Your task to perform on an android device: Open sound settings Image 0: 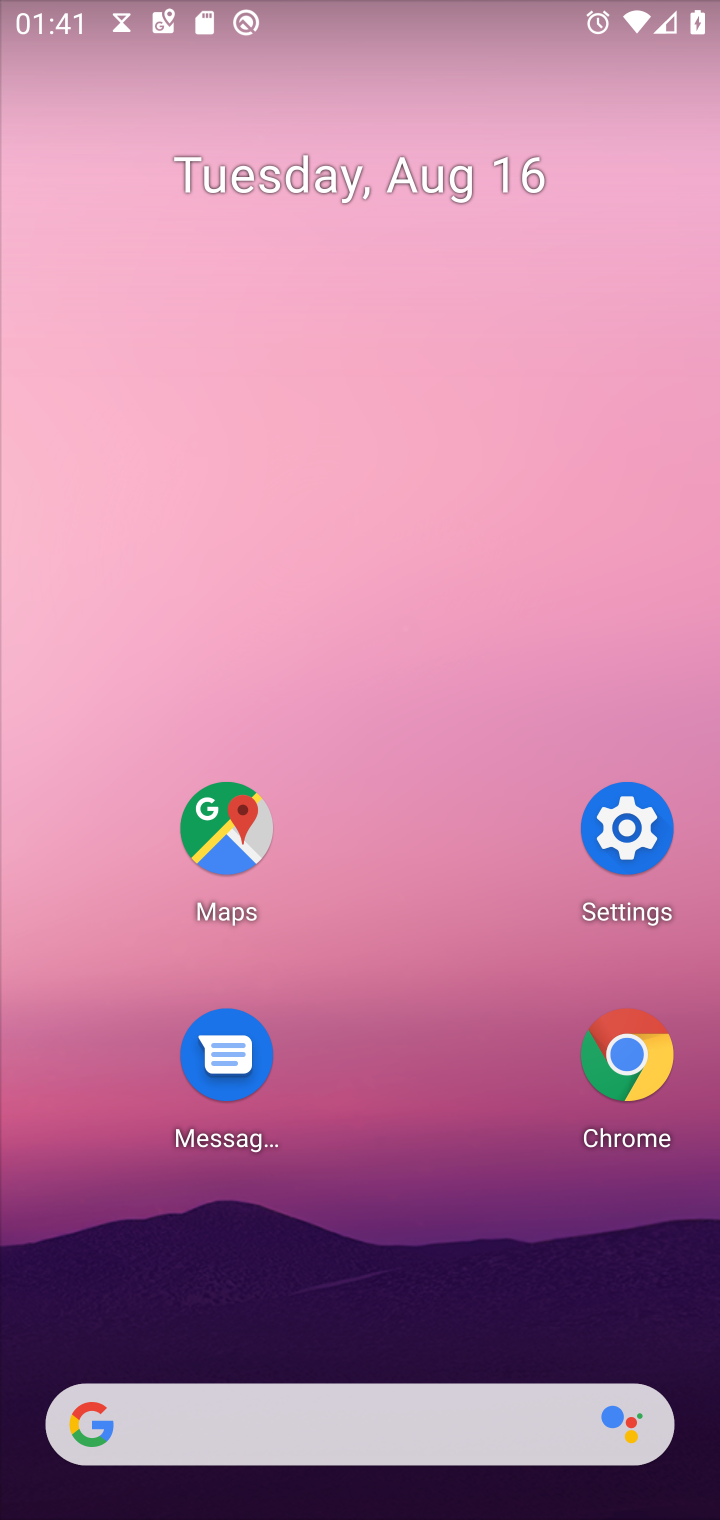
Step 0: press home button
Your task to perform on an android device: Open sound settings Image 1: 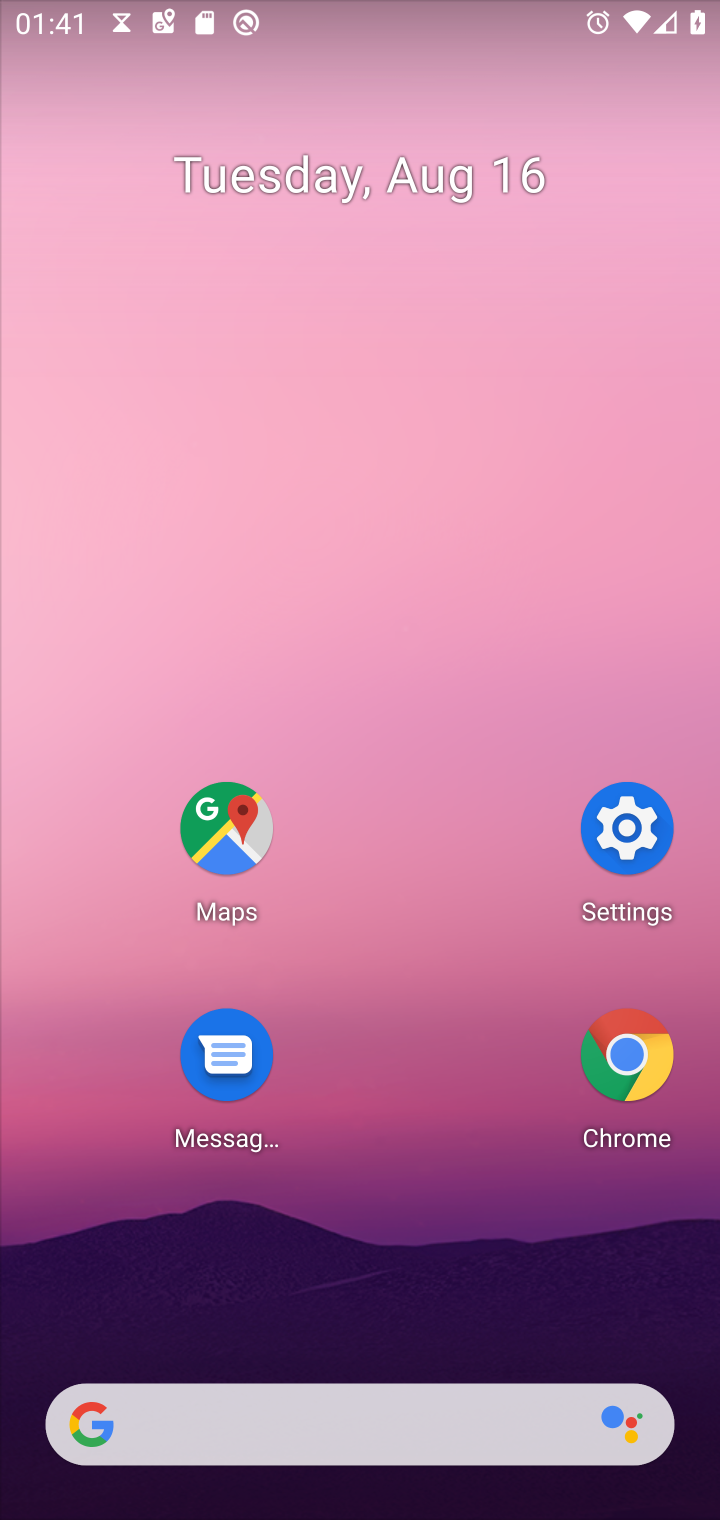
Step 1: click (597, 838)
Your task to perform on an android device: Open sound settings Image 2: 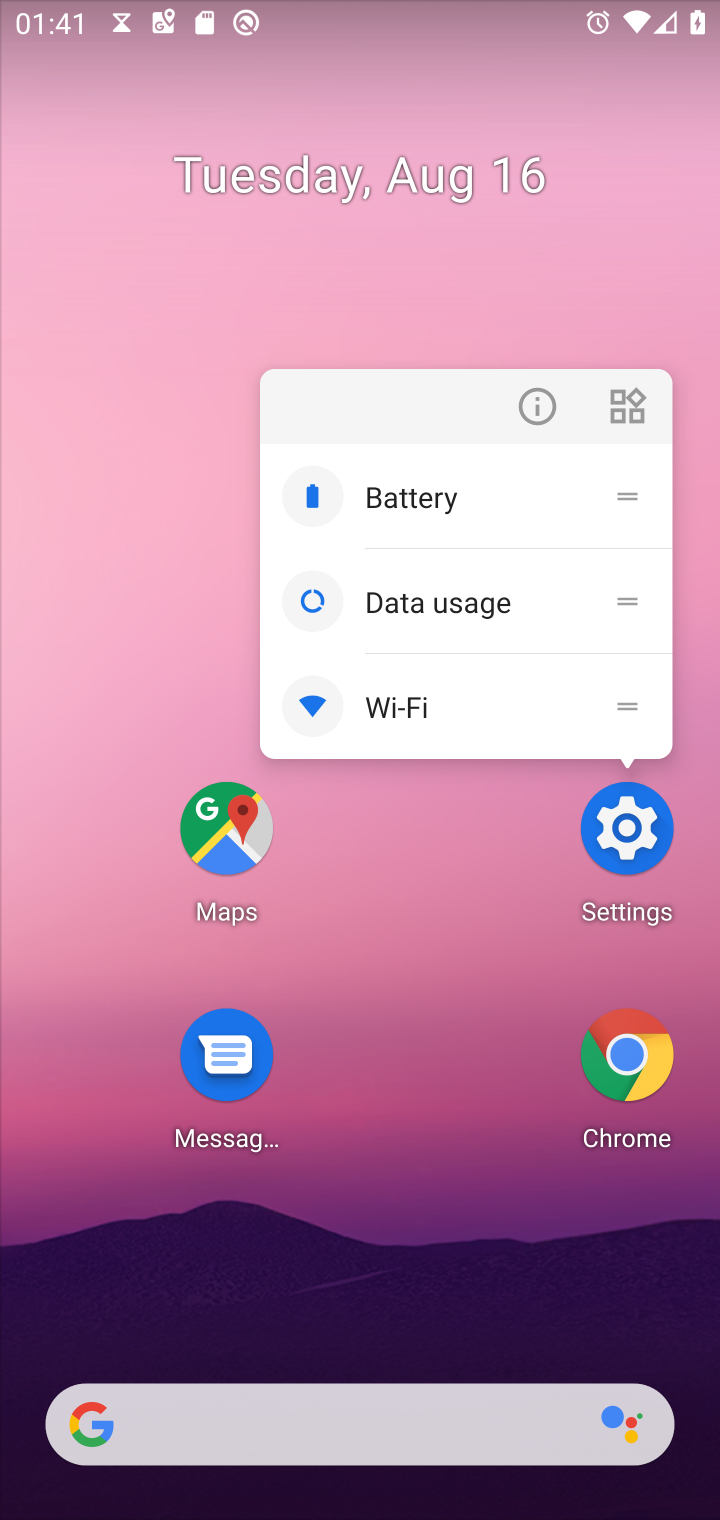
Step 2: click (631, 830)
Your task to perform on an android device: Open sound settings Image 3: 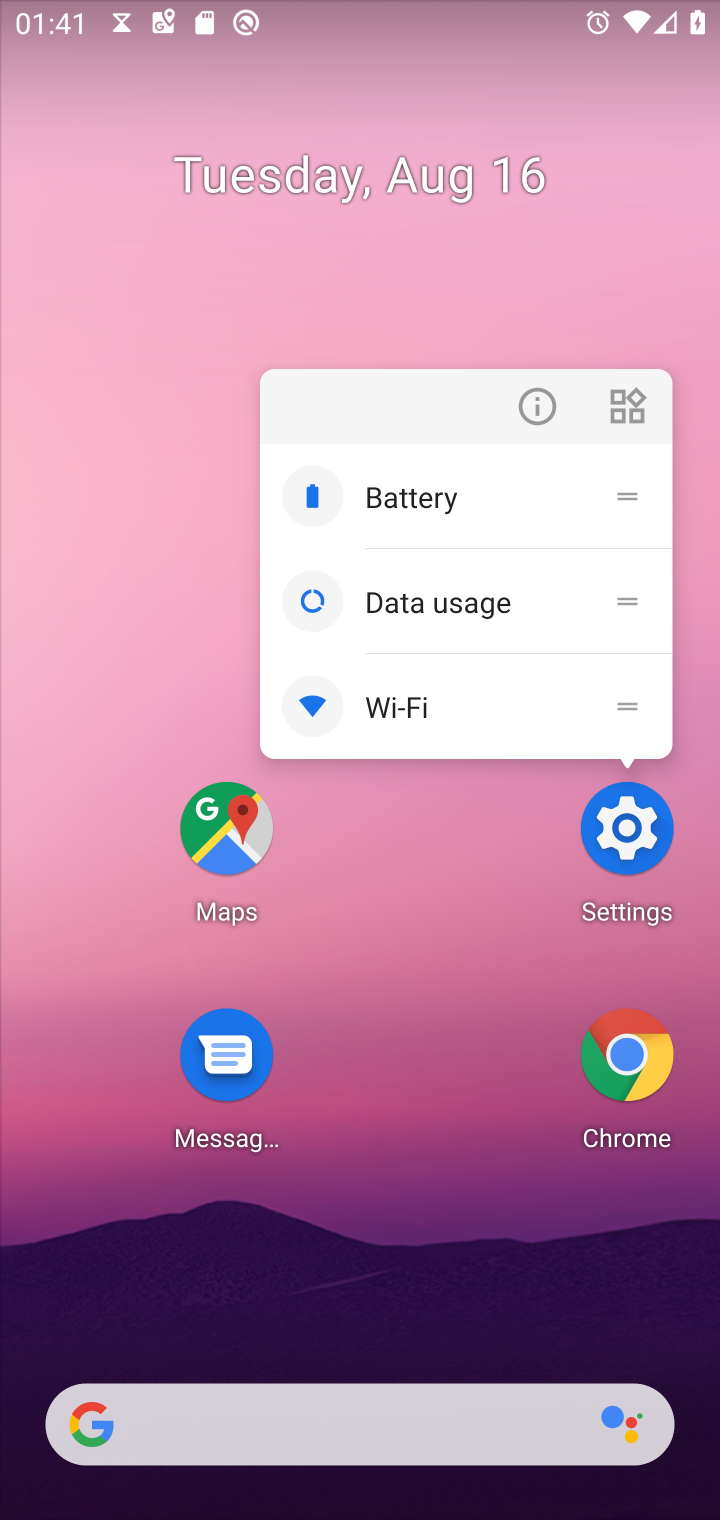
Step 3: click (633, 846)
Your task to perform on an android device: Open sound settings Image 4: 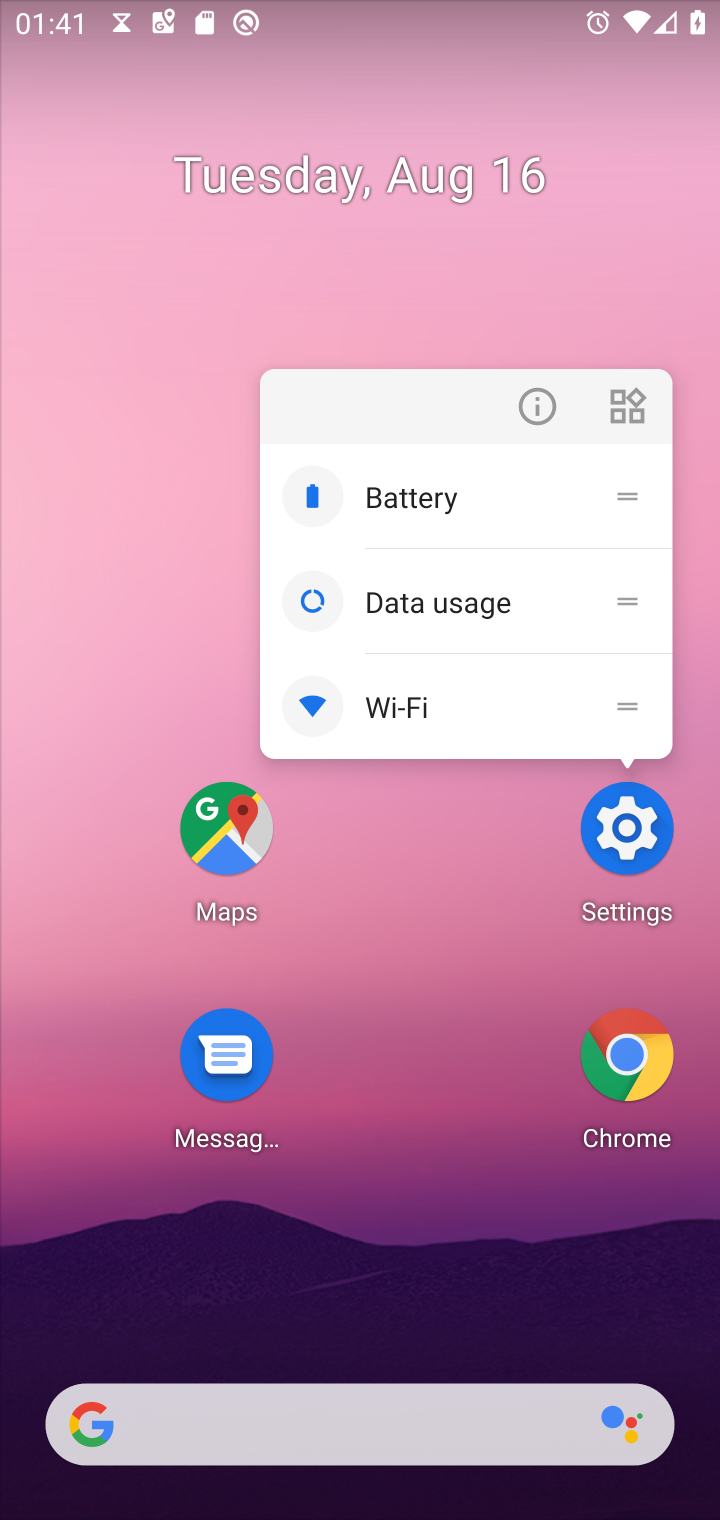
Step 4: click (633, 846)
Your task to perform on an android device: Open sound settings Image 5: 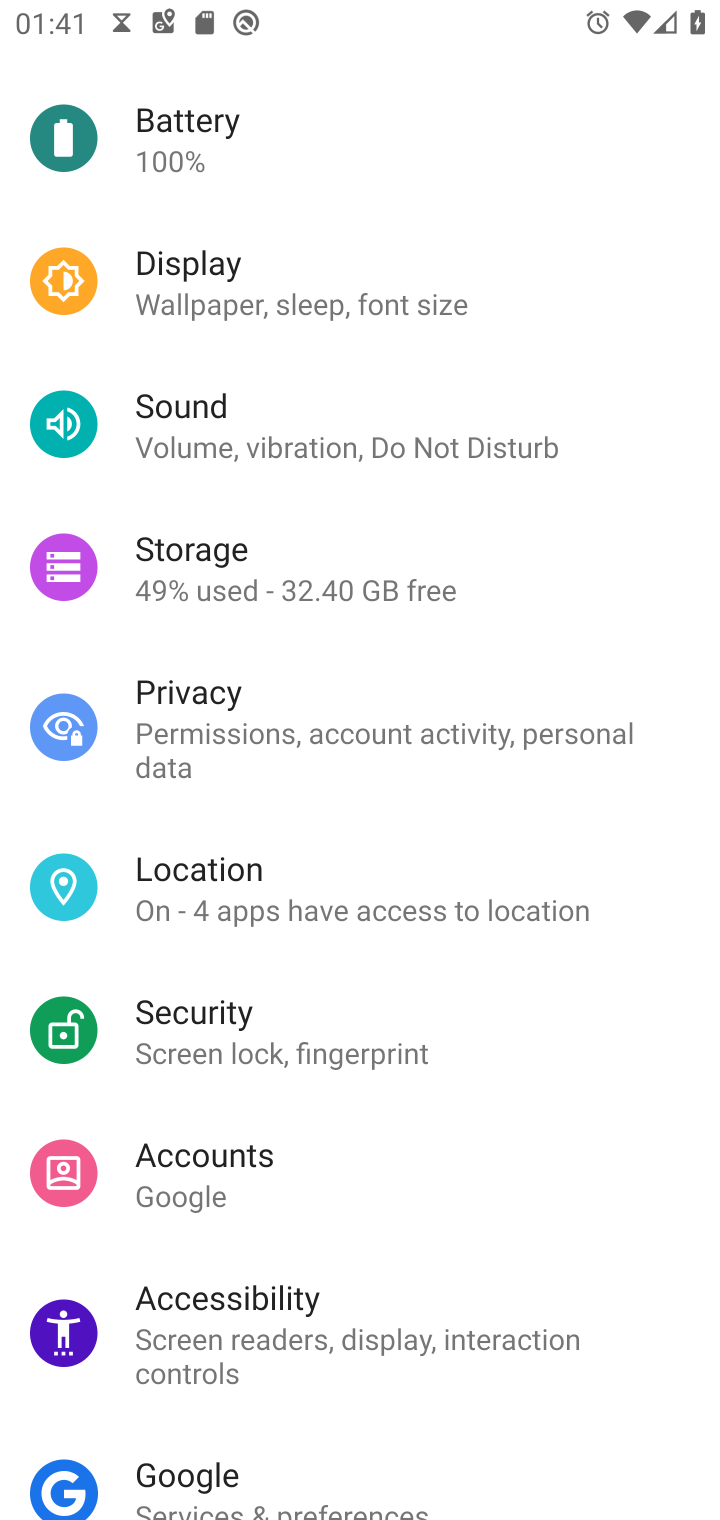
Step 5: click (207, 416)
Your task to perform on an android device: Open sound settings Image 6: 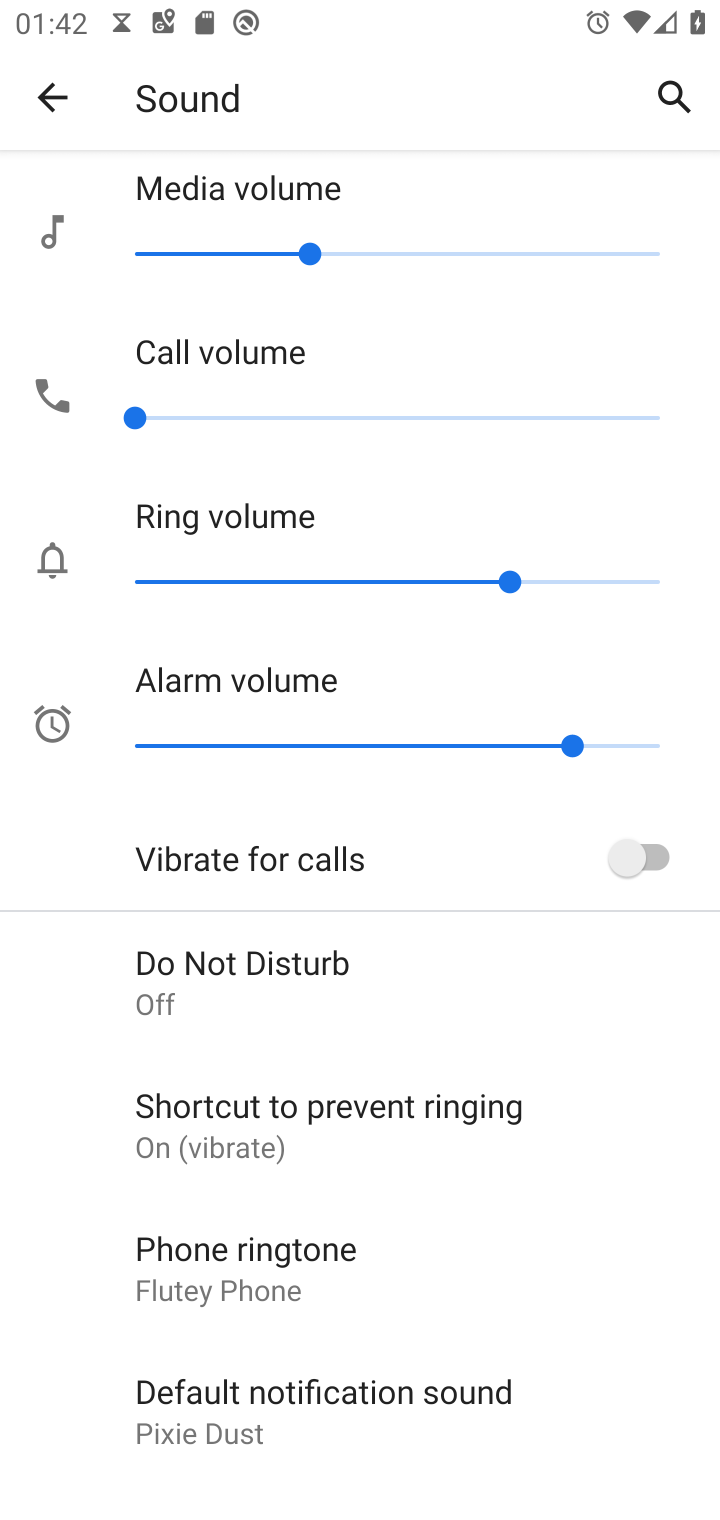
Step 6: task complete